Your task to perform on an android device: Open Amazon Image 0: 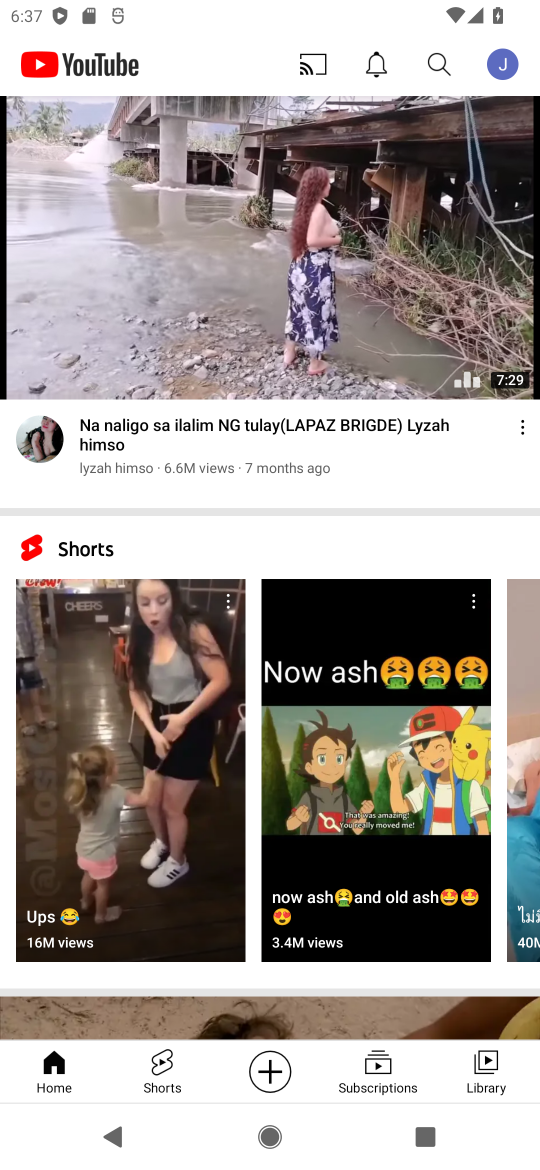
Step 0: press home button
Your task to perform on an android device: Open Amazon Image 1: 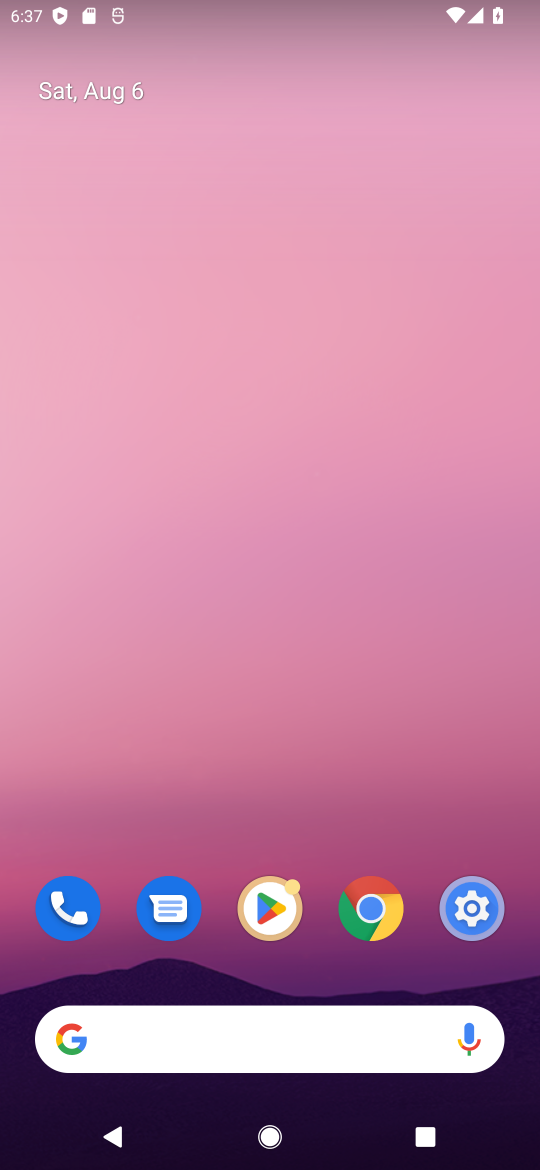
Step 1: click (357, 898)
Your task to perform on an android device: Open Amazon Image 2: 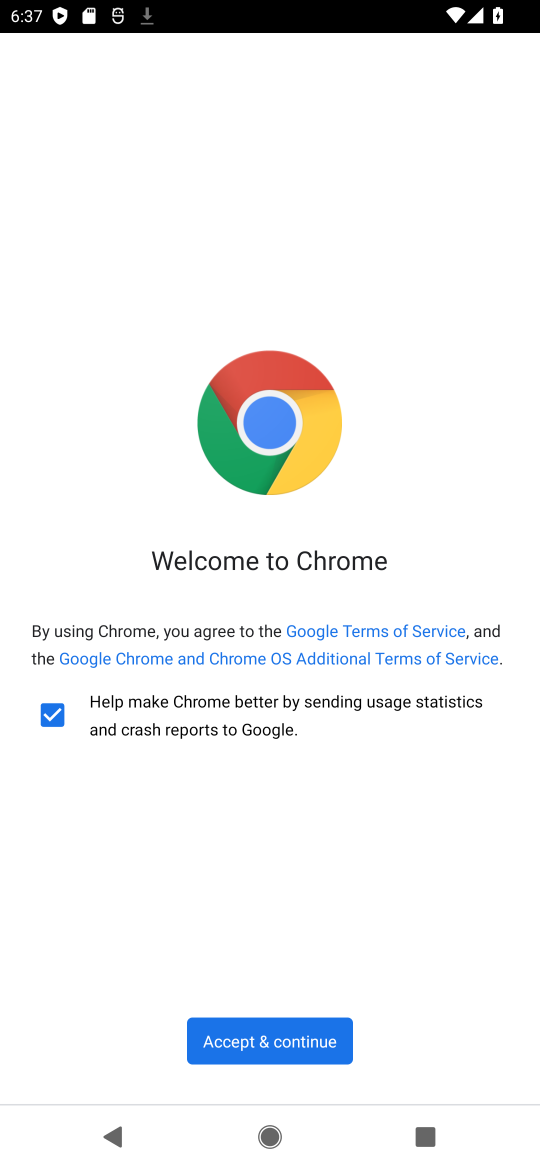
Step 2: click (287, 1041)
Your task to perform on an android device: Open Amazon Image 3: 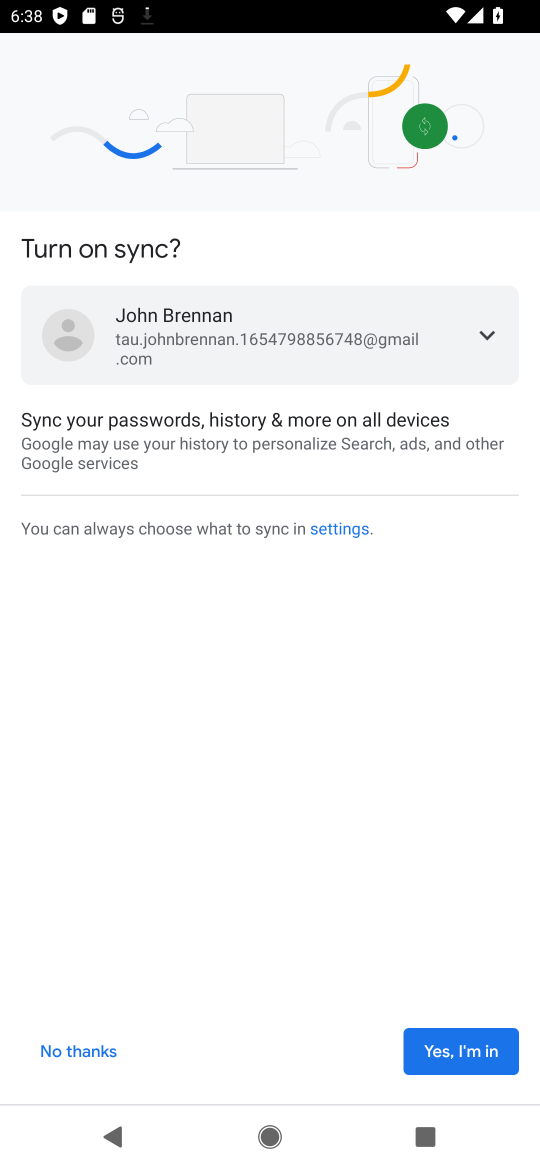
Step 3: click (491, 1042)
Your task to perform on an android device: Open Amazon Image 4: 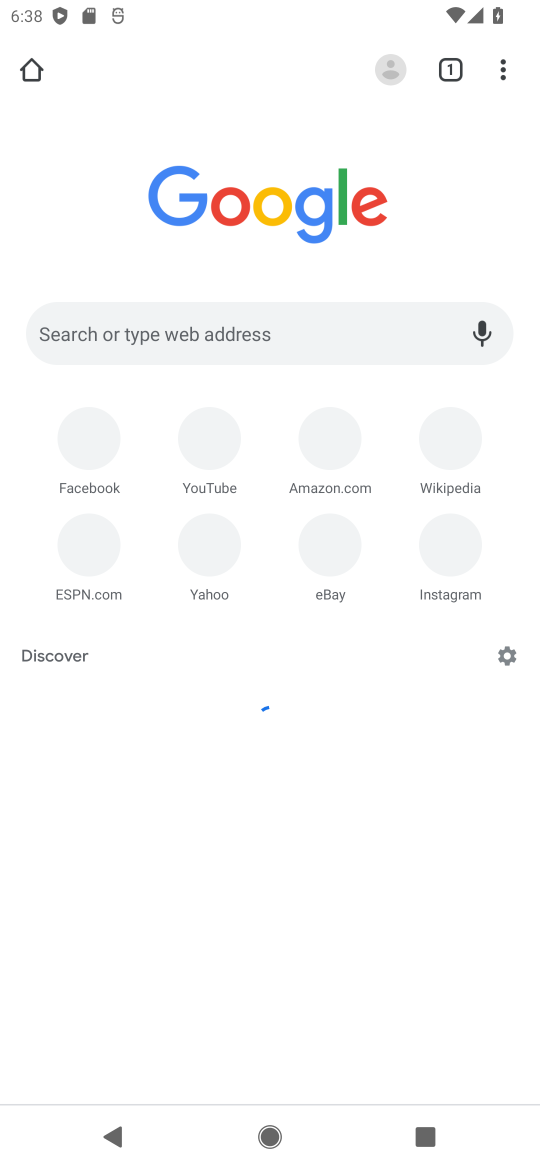
Step 4: click (486, 1044)
Your task to perform on an android device: Open Amazon Image 5: 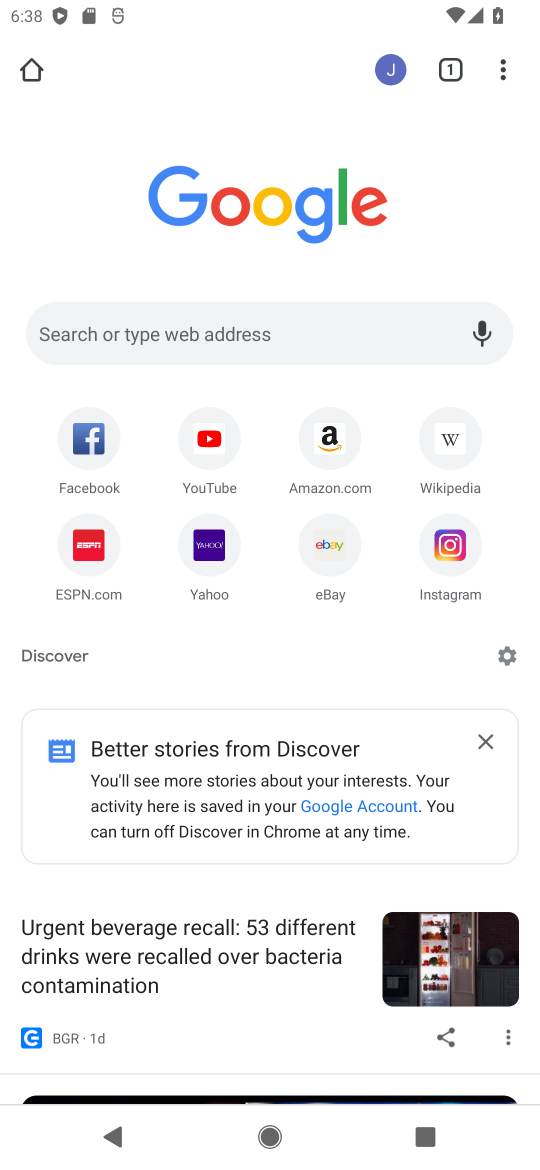
Step 5: click (332, 429)
Your task to perform on an android device: Open Amazon Image 6: 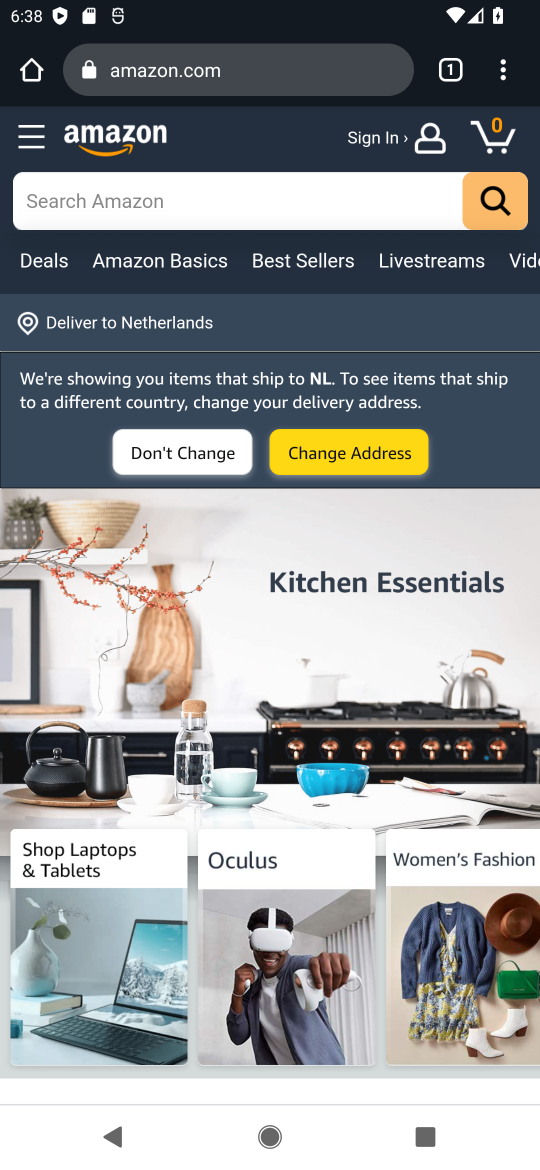
Step 6: task complete